Your task to perform on an android device: add a contact in the contacts app Image 0: 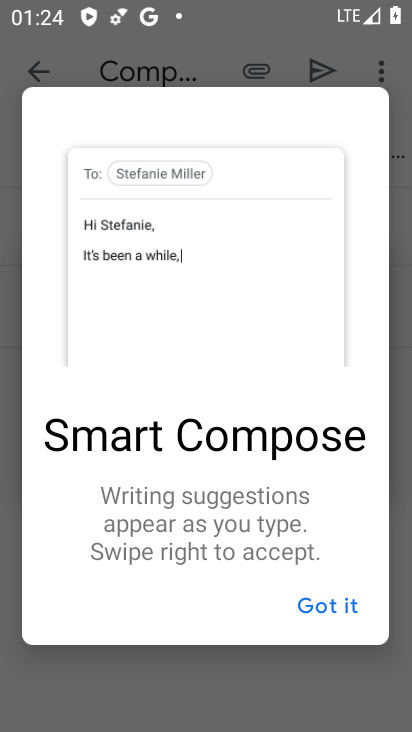
Step 0: press home button
Your task to perform on an android device: add a contact in the contacts app Image 1: 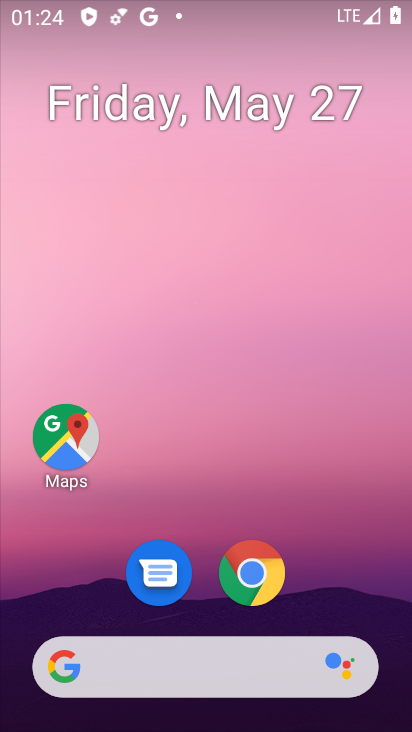
Step 1: drag from (215, 626) to (396, 685)
Your task to perform on an android device: add a contact in the contacts app Image 2: 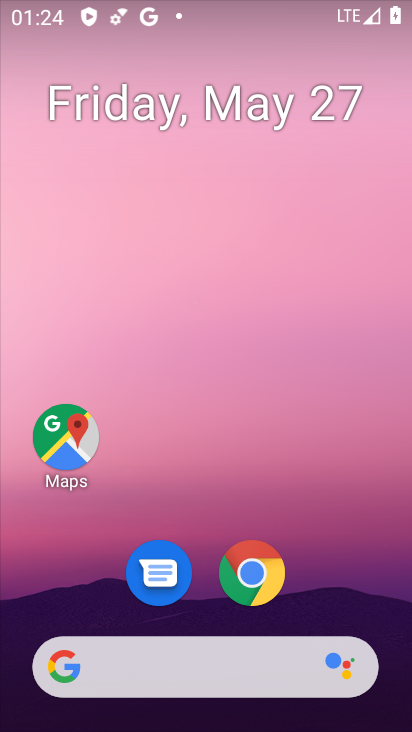
Step 2: click (167, 677)
Your task to perform on an android device: add a contact in the contacts app Image 3: 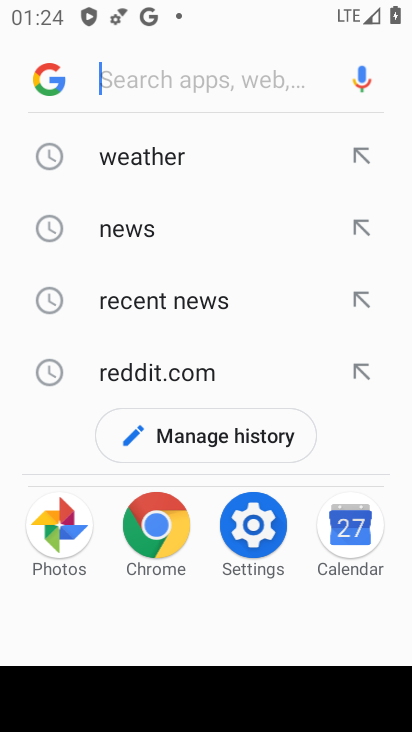
Step 3: press home button
Your task to perform on an android device: add a contact in the contacts app Image 4: 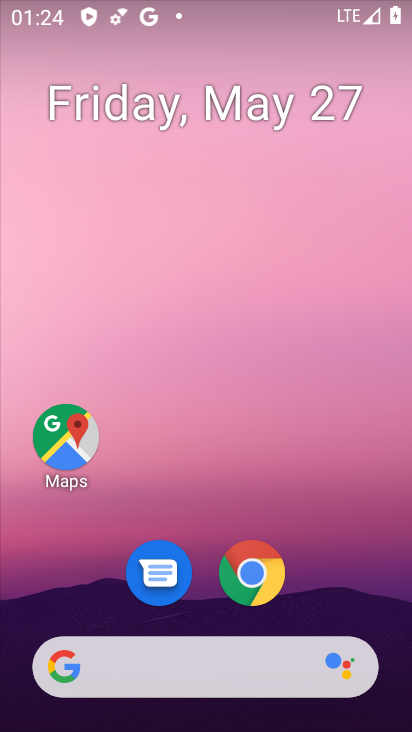
Step 4: drag from (235, 603) to (189, 71)
Your task to perform on an android device: add a contact in the contacts app Image 5: 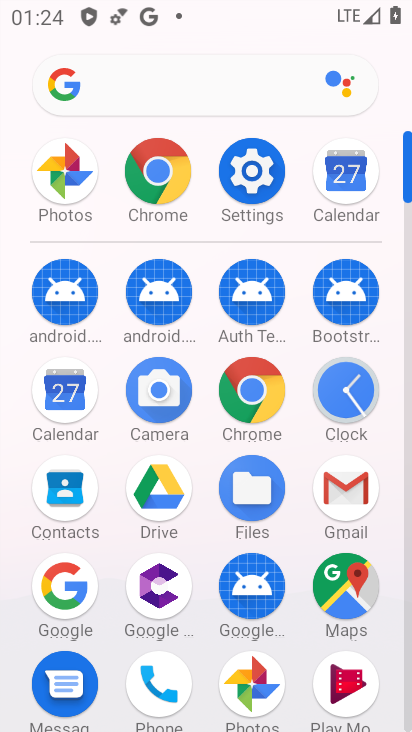
Step 5: click (132, 690)
Your task to perform on an android device: add a contact in the contacts app Image 6: 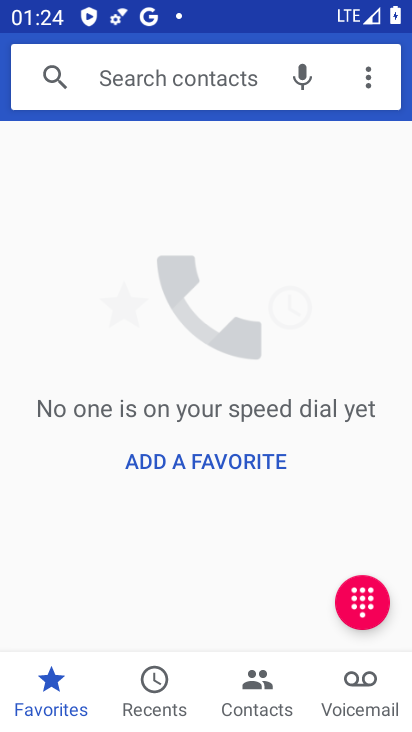
Step 6: click (247, 686)
Your task to perform on an android device: add a contact in the contacts app Image 7: 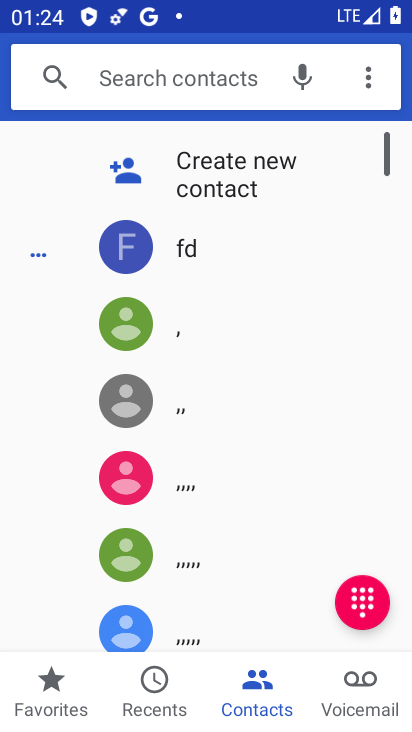
Step 7: click (233, 179)
Your task to perform on an android device: add a contact in the contacts app Image 8: 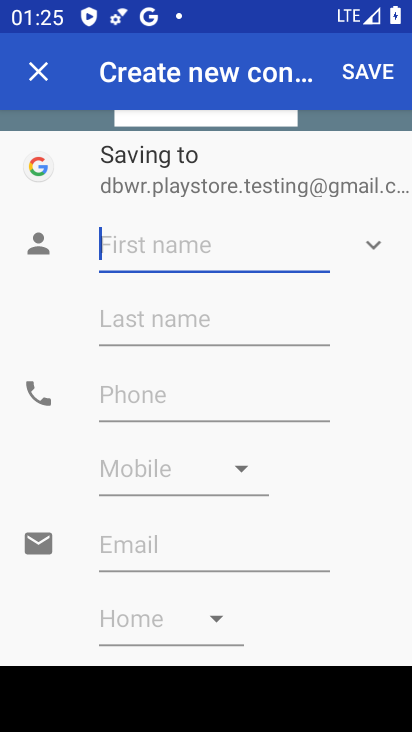
Step 8: type "General"
Your task to perform on an android device: add a contact in the contacts app Image 9: 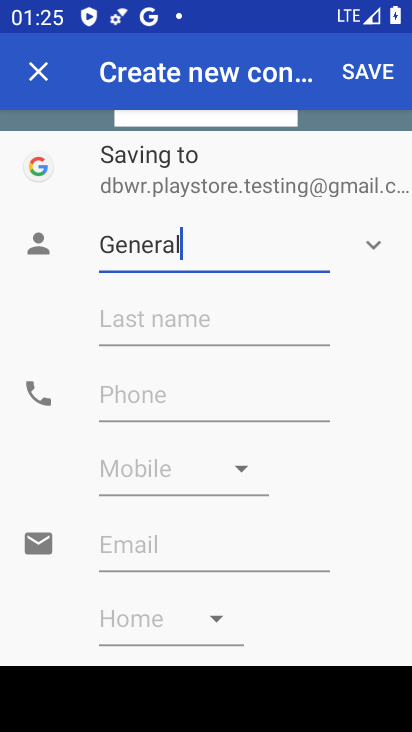
Step 9: type ""
Your task to perform on an android device: add a contact in the contacts app Image 10: 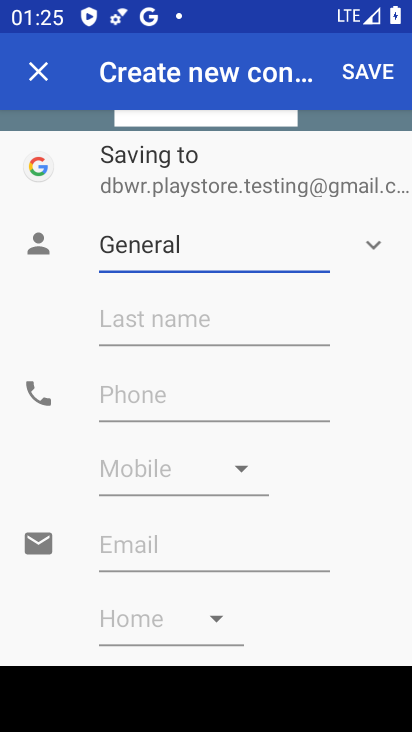
Step 10: click (363, 73)
Your task to perform on an android device: add a contact in the contacts app Image 11: 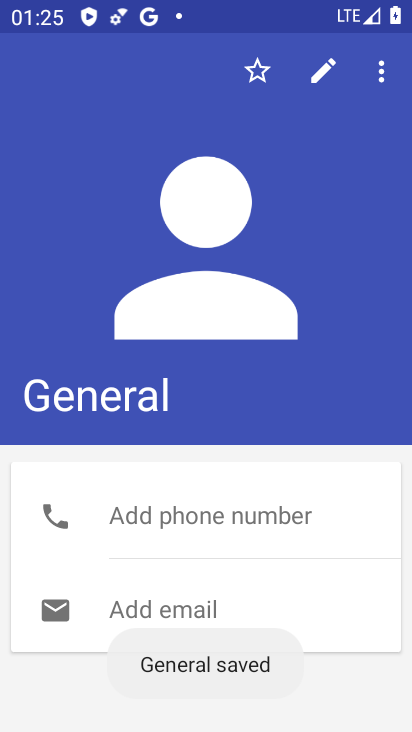
Step 11: task complete